Your task to perform on an android device: Go to calendar. Show me events next week Image 0: 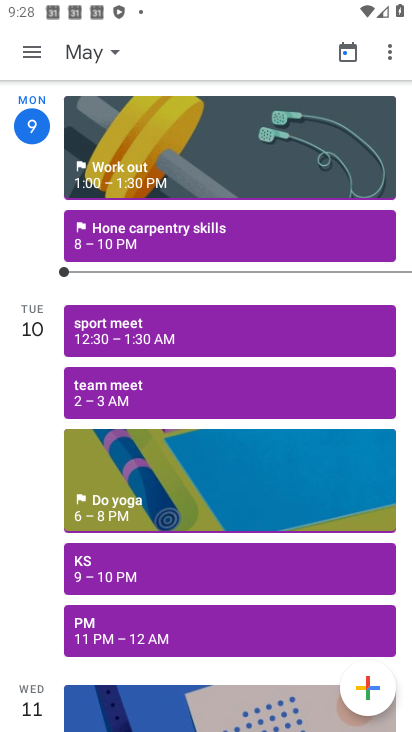
Step 0: press home button
Your task to perform on an android device: Go to calendar. Show me events next week Image 1: 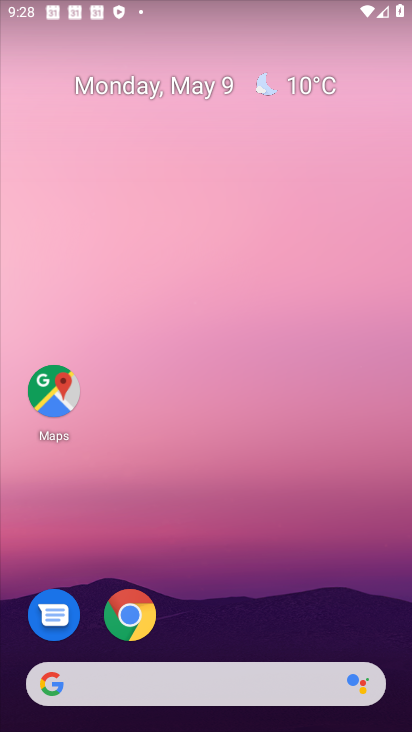
Step 1: drag from (183, 513) to (287, 70)
Your task to perform on an android device: Go to calendar. Show me events next week Image 2: 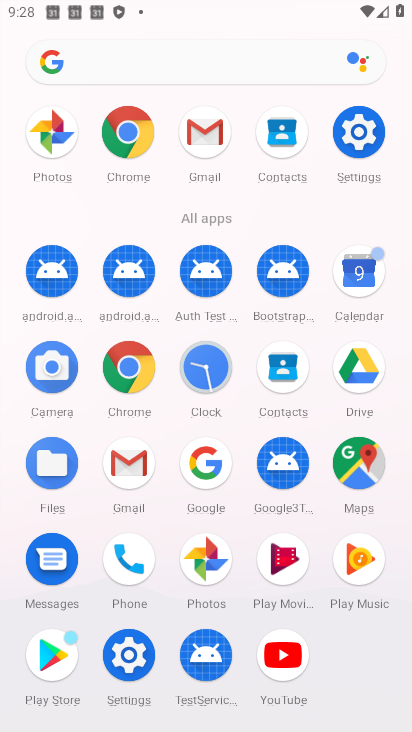
Step 2: click (355, 263)
Your task to perform on an android device: Go to calendar. Show me events next week Image 3: 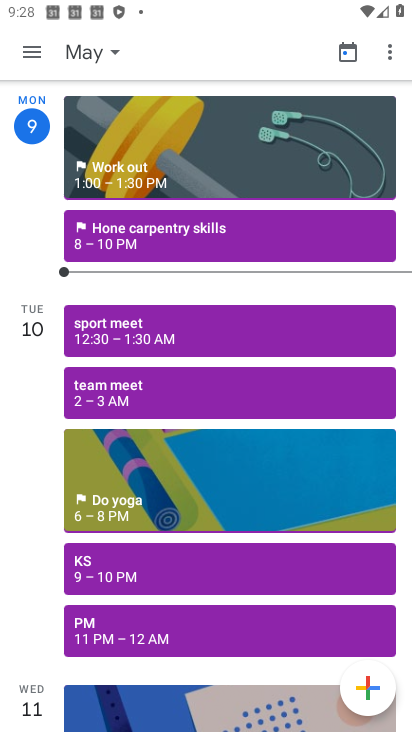
Step 3: click (102, 57)
Your task to perform on an android device: Go to calendar. Show me events next week Image 4: 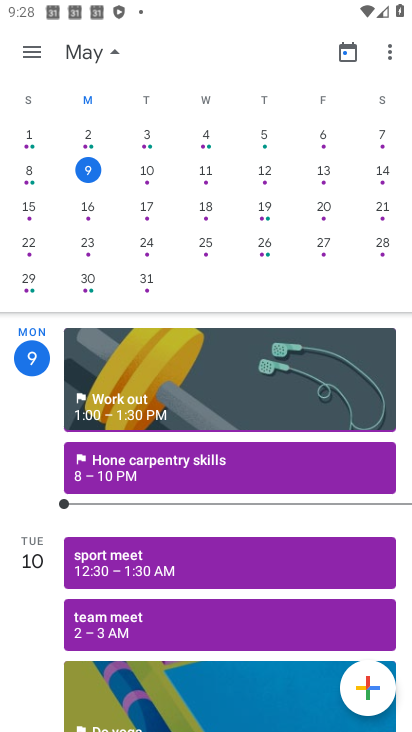
Step 4: click (25, 61)
Your task to perform on an android device: Go to calendar. Show me events next week Image 5: 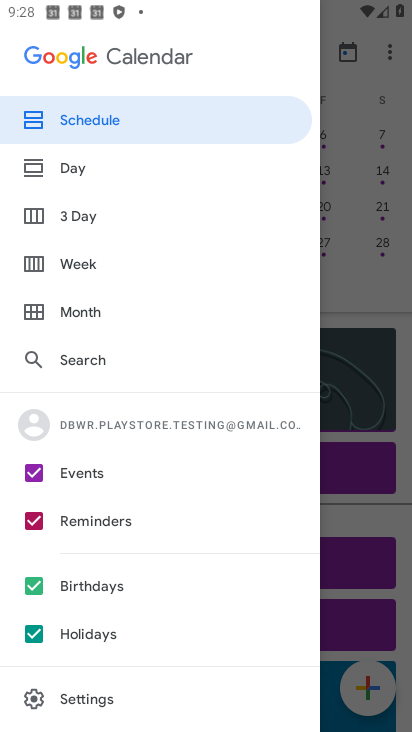
Step 5: click (32, 522)
Your task to perform on an android device: Go to calendar. Show me events next week Image 6: 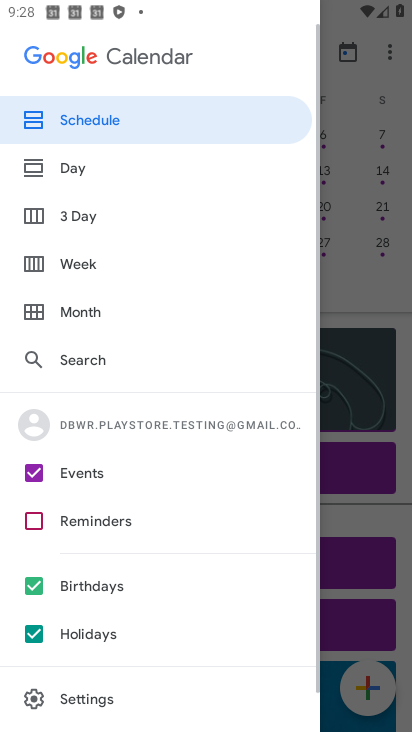
Step 6: click (29, 594)
Your task to perform on an android device: Go to calendar. Show me events next week Image 7: 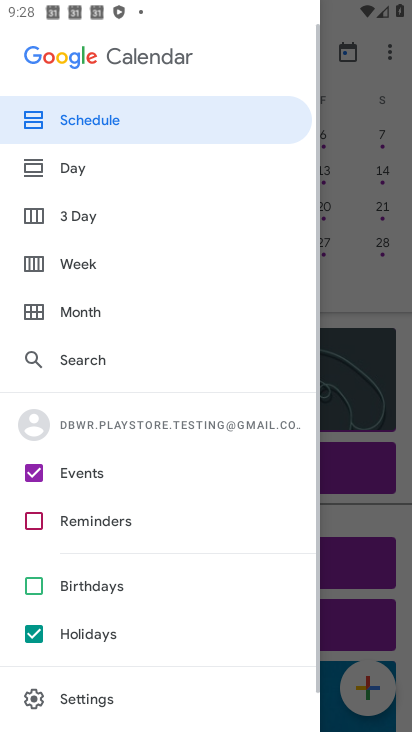
Step 7: click (28, 639)
Your task to perform on an android device: Go to calendar. Show me events next week Image 8: 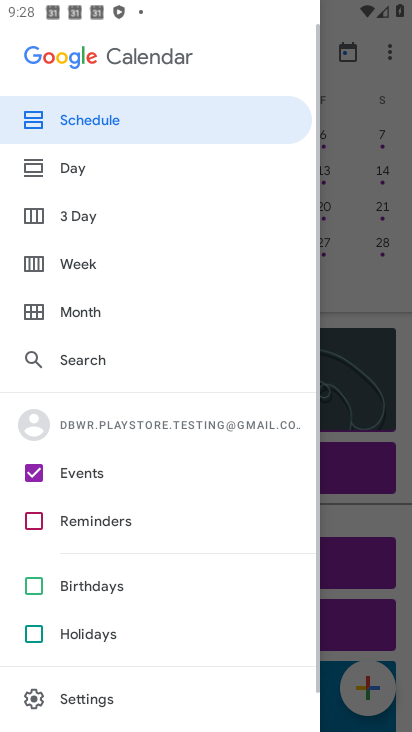
Step 8: click (100, 275)
Your task to perform on an android device: Go to calendar. Show me events next week Image 9: 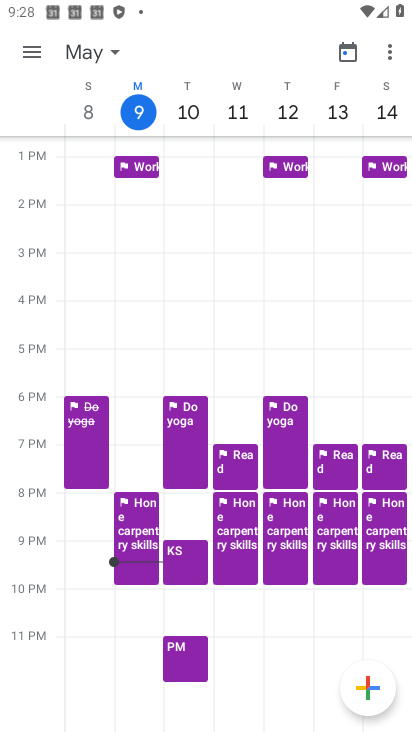
Step 9: task complete